Your task to perform on an android device: What's on my calendar tomorrow? Image 0: 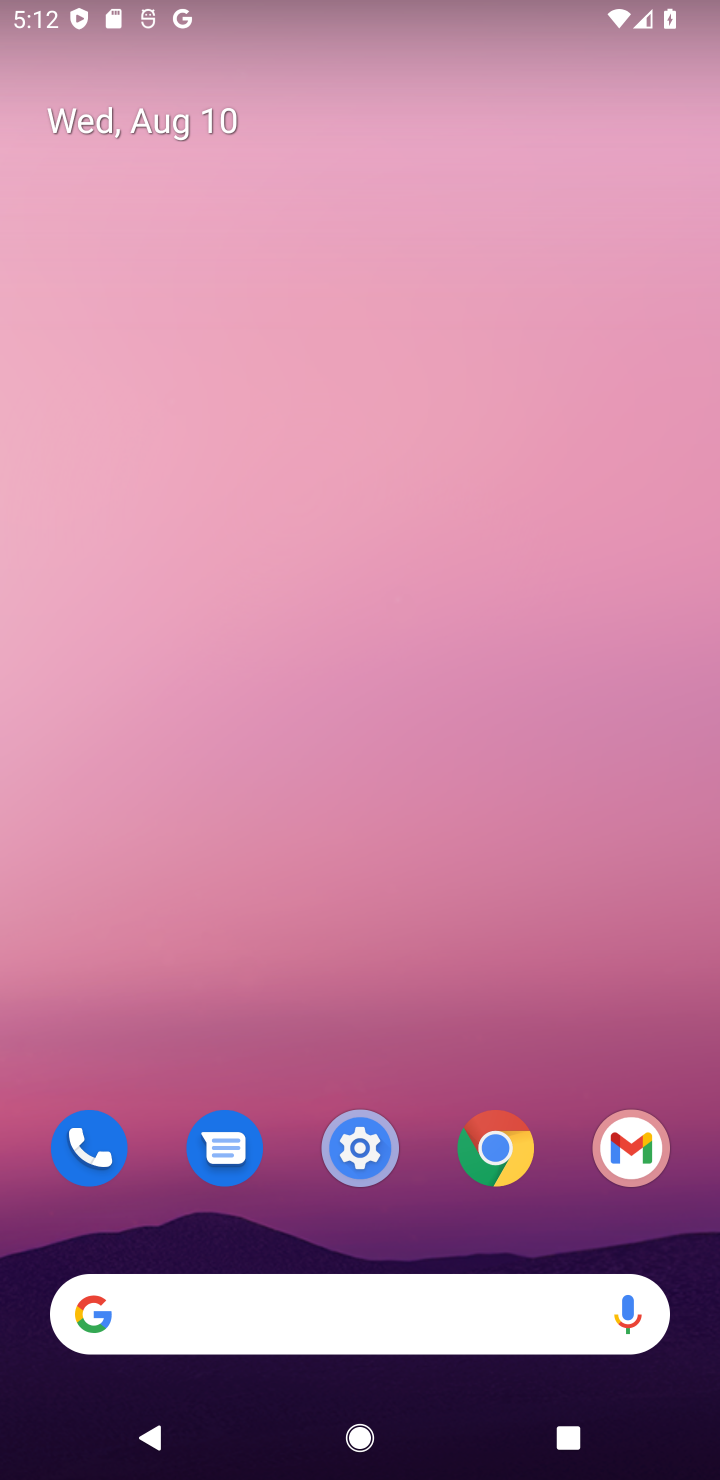
Step 0: drag from (132, 1231) to (289, 229)
Your task to perform on an android device: What's on my calendar tomorrow? Image 1: 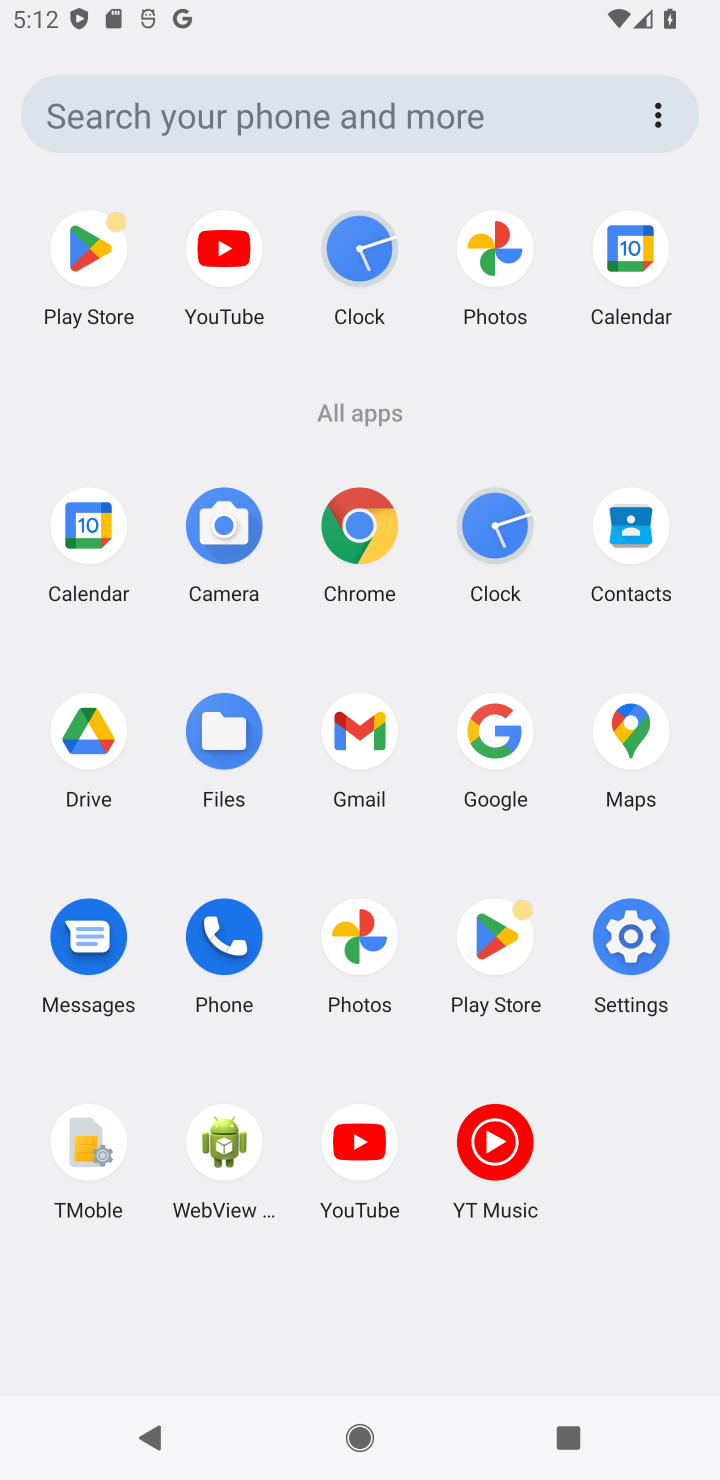
Step 1: click (613, 247)
Your task to perform on an android device: What's on my calendar tomorrow? Image 2: 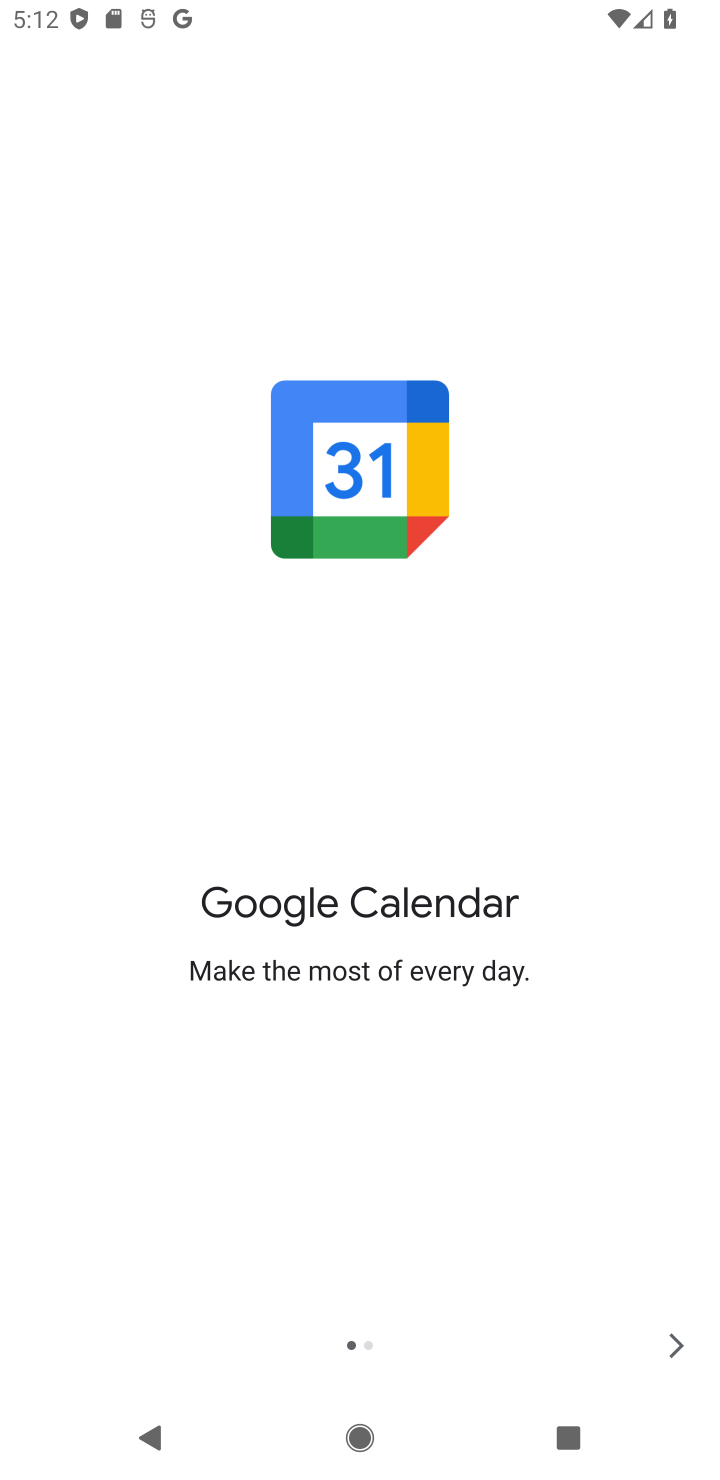
Step 2: click (679, 1344)
Your task to perform on an android device: What's on my calendar tomorrow? Image 3: 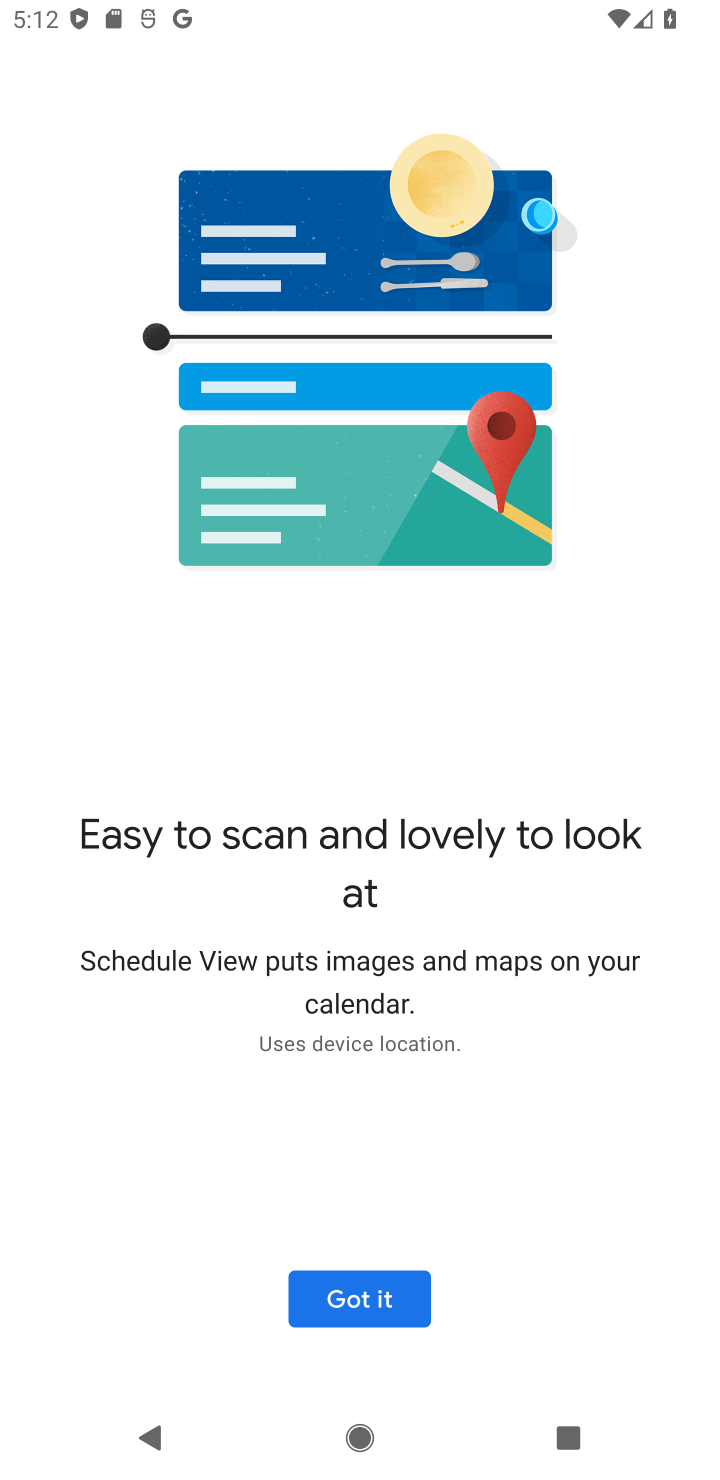
Step 3: click (679, 1344)
Your task to perform on an android device: What's on my calendar tomorrow? Image 4: 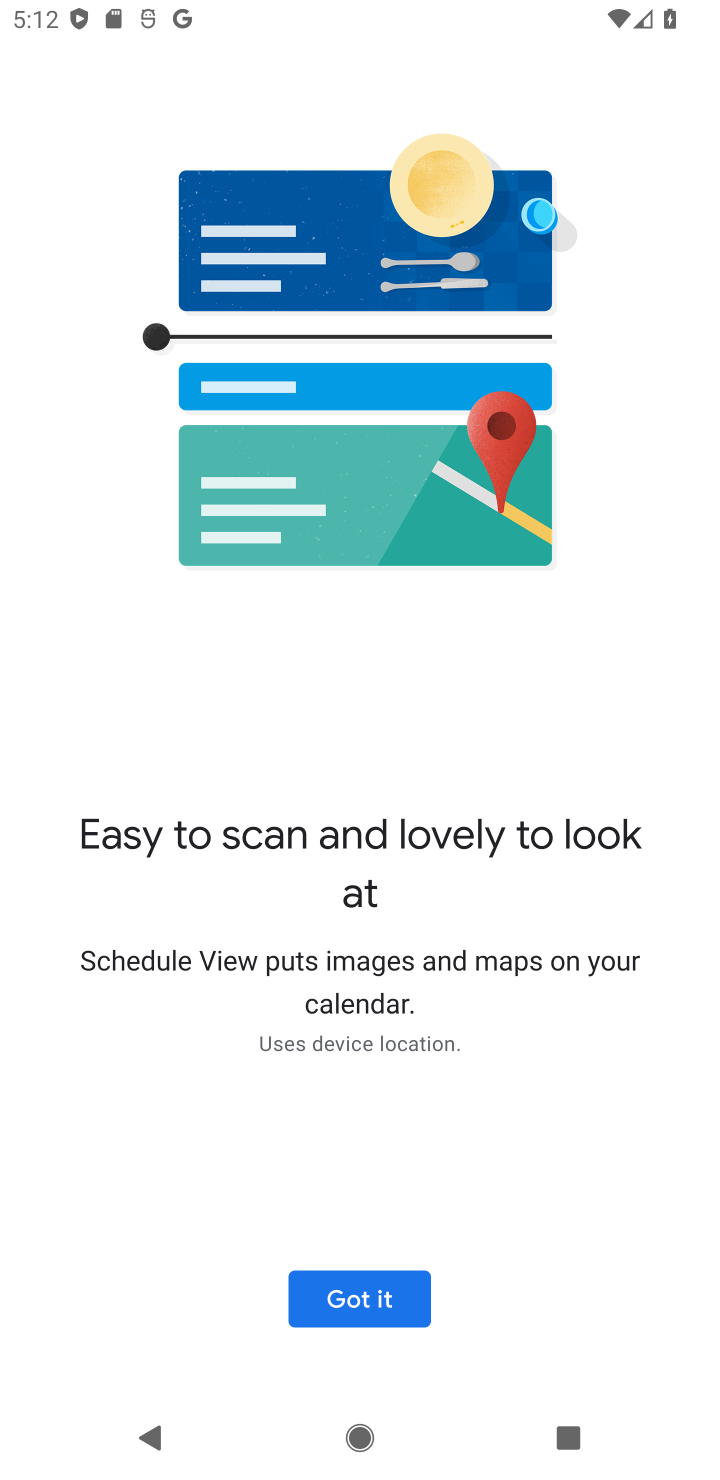
Step 4: click (385, 1298)
Your task to perform on an android device: What's on my calendar tomorrow? Image 5: 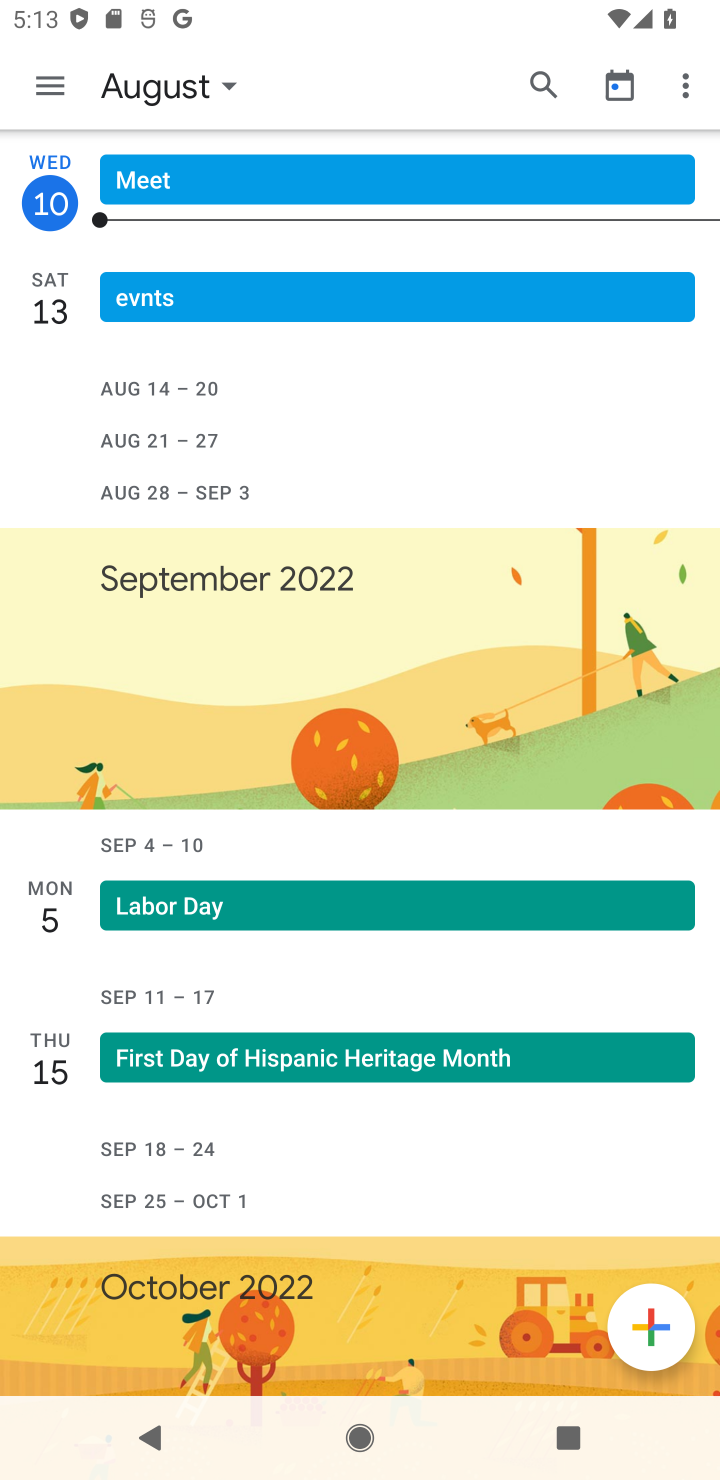
Step 5: click (50, 83)
Your task to perform on an android device: What's on my calendar tomorrow? Image 6: 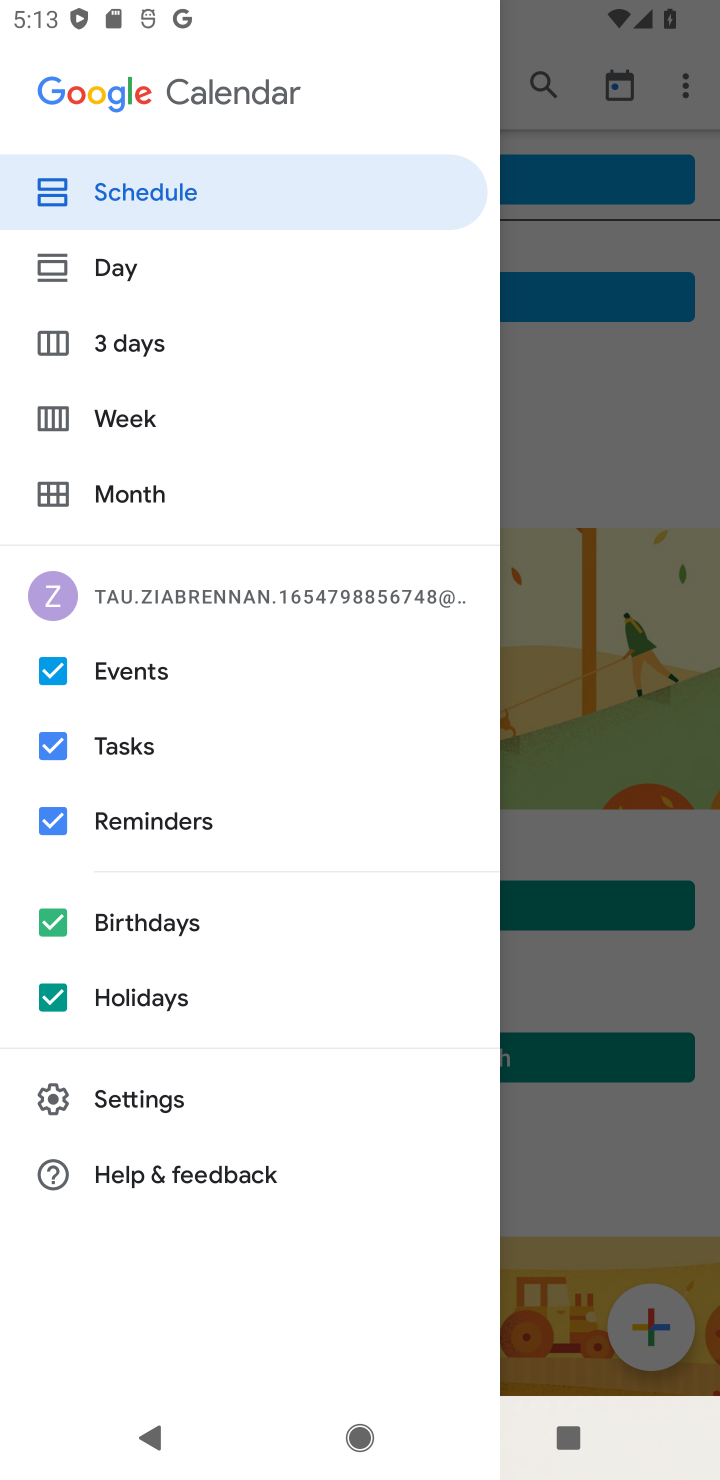
Step 6: click (139, 276)
Your task to perform on an android device: What's on my calendar tomorrow? Image 7: 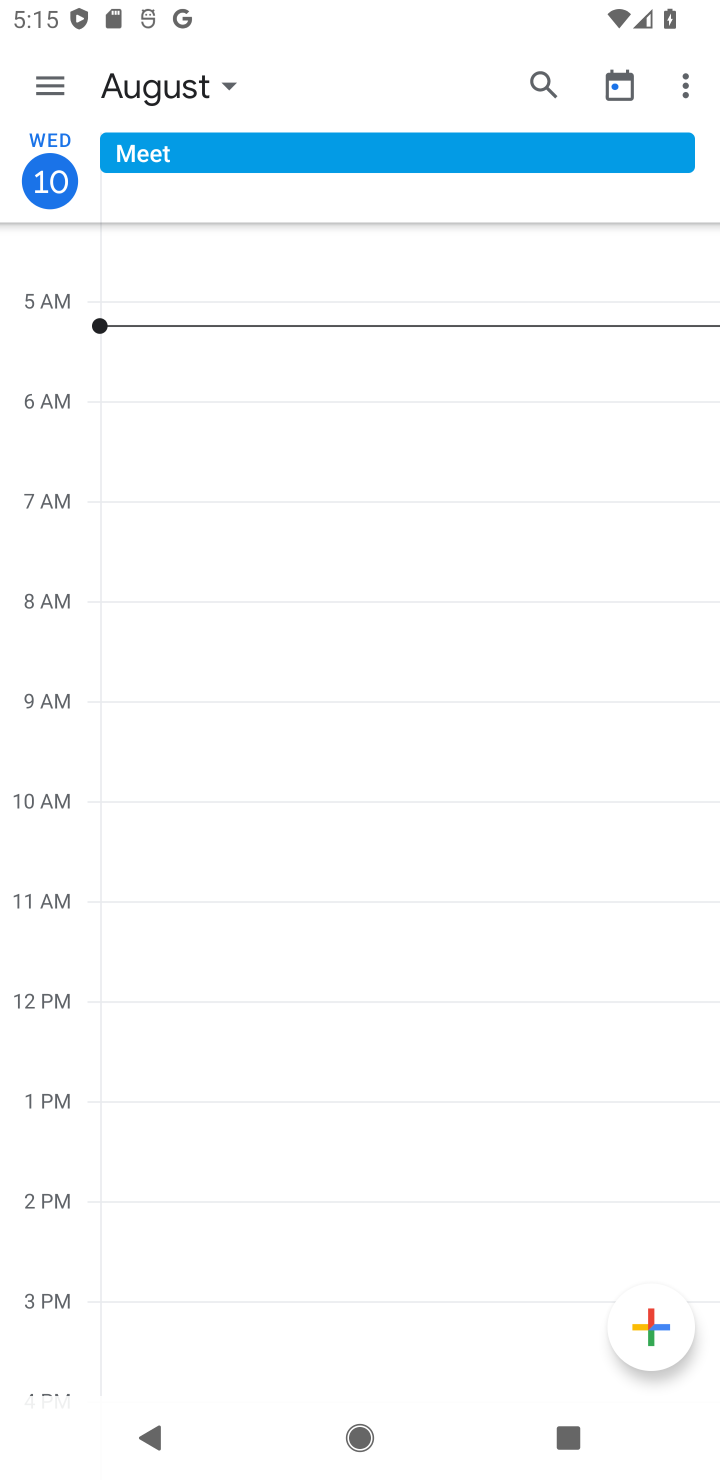
Step 7: task complete